Your task to perform on an android device: turn vacation reply on in the gmail app Image 0: 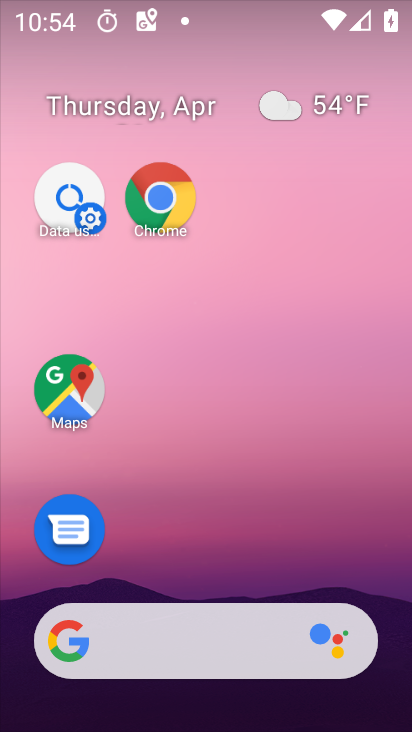
Step 0: drag from (185, 588) to (187, 52)
Your task to perform on an android device: turn vacation reply on in the gmail app Image 1: 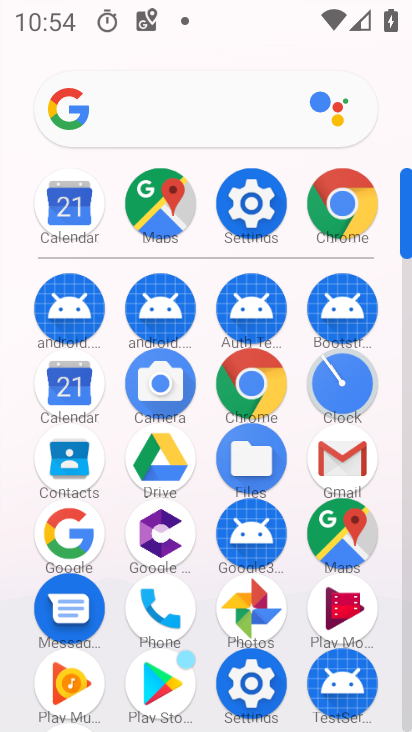
Step 1: click (351, 455)
Your task to perform on an android device: turn vacation reply on in the gmail app Image 2: 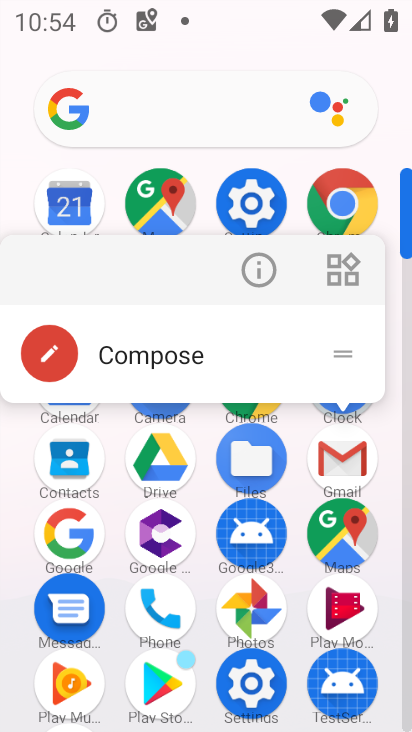
Step 2: click (354, 456)
Your task to perform on an android device: turn vacation reply on in the gmail app Image 3: 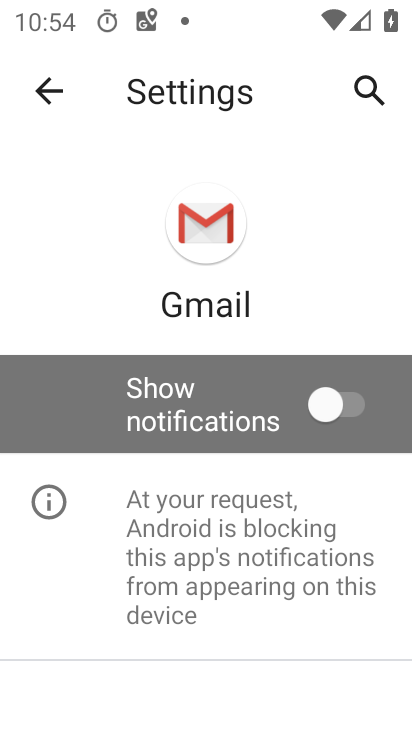
Step 3: click (43, 85)
Your task to perform on an android device: turn vacation reply on in the gmail app Image 4: 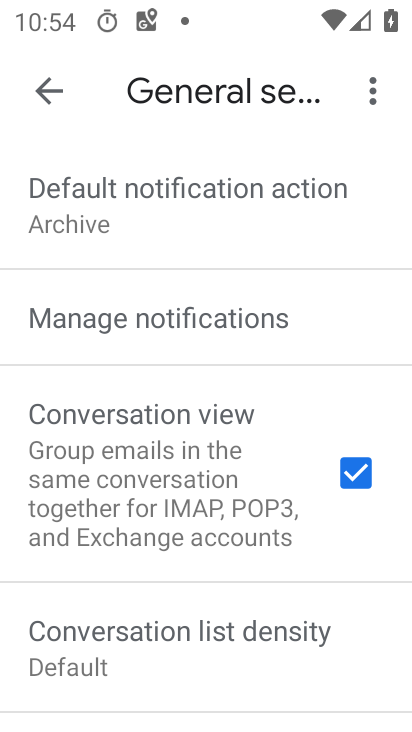
Step 4: click (48, 74)
Your task to perform on an android device: turn vacation reply on in the gmail app Image 5: 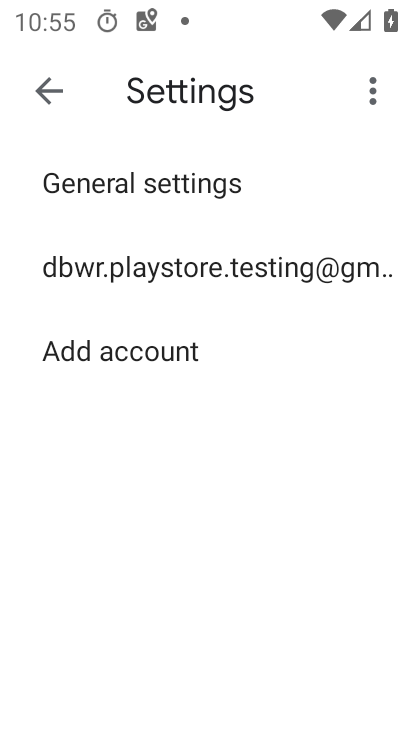
Step 5: click (125, 257)
Your task to perform on an android device: turn vacation reply on in the gmail app Image 6: 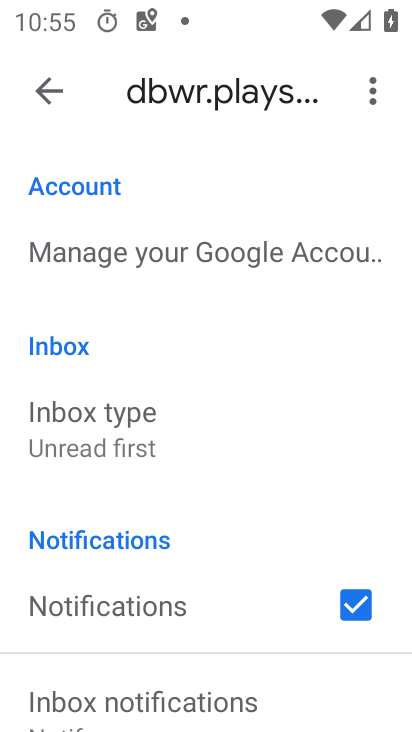
Step 6: drag from (246, 604) to (197, 153)
Your task to perform on an android device: turn vacation reply on in the gmail app Image 7: 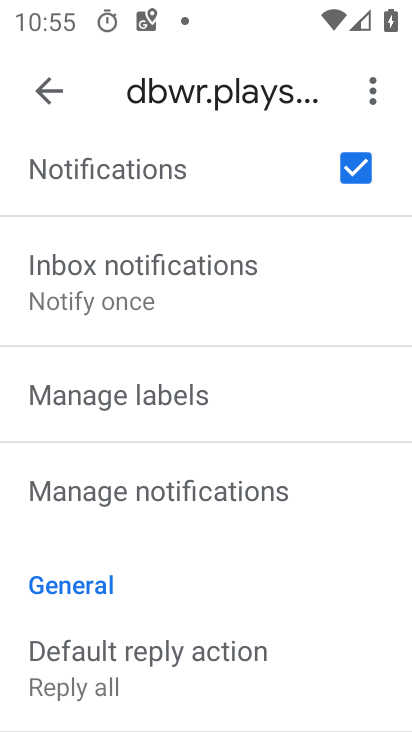
Step 7: drag from (242, 574) to (213, 58)
Your task to perform on an android device: turn vacation reply on in the gmail app Image 8: 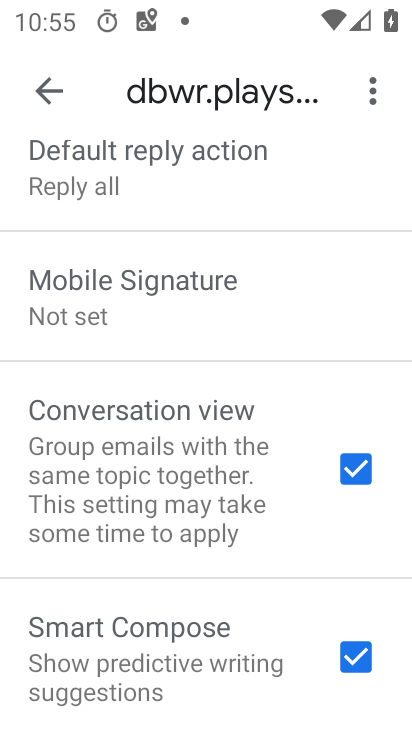
Step 8: drag from (209, 617) to (197, 4)
Your task to perform on an android device: turn vacation reply on in the gmail app Image 9: 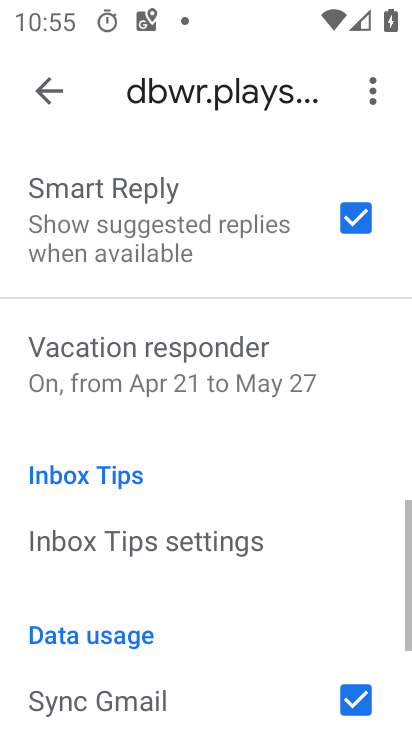
Step 9: click (191, 383)
Your task to perform on an android device: turn vacation reply on in the gmail app Image 10: 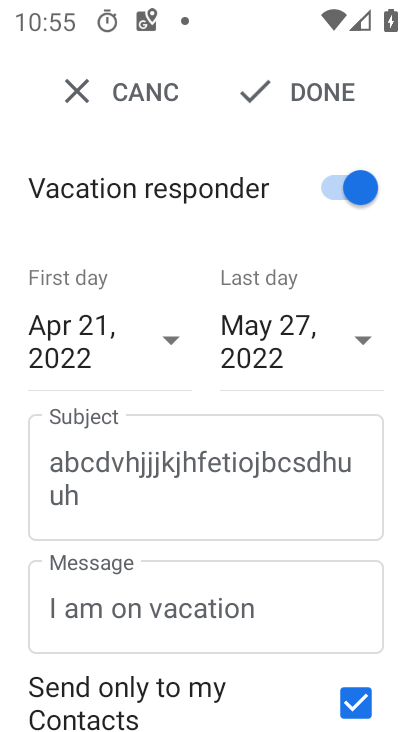
Step 10: click (288, 82)
Your task to perform on an android device: turn vacation reply on in the gmail app Image 11: 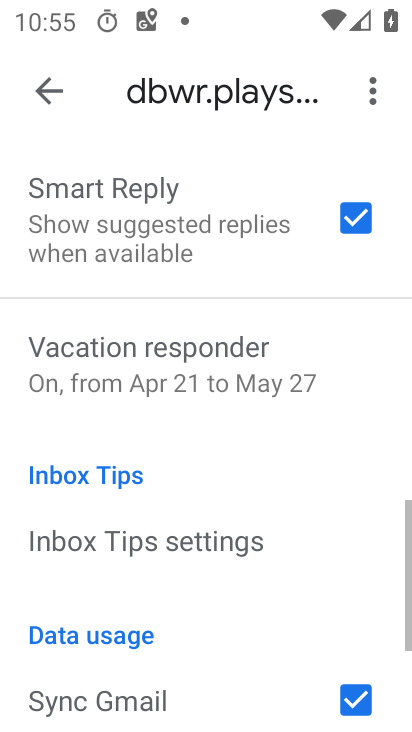
Step 11: task complete